Your task to perform on an android device: turn smart compose on in the gmail app Image 0: 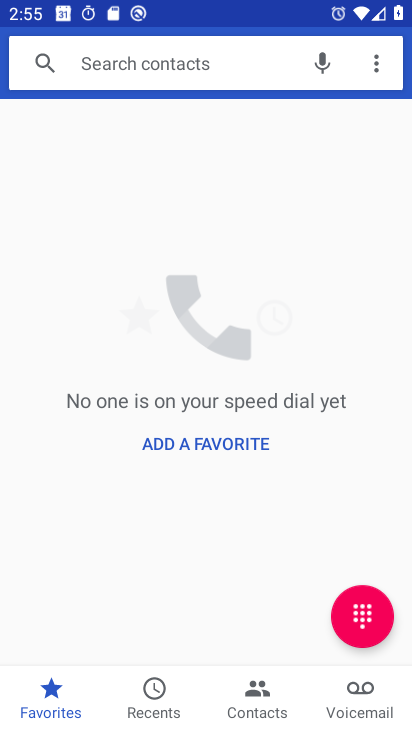
Step 0: press home button
Your task to perform on an android device: turn smart compose on in the gmail app Image 1: 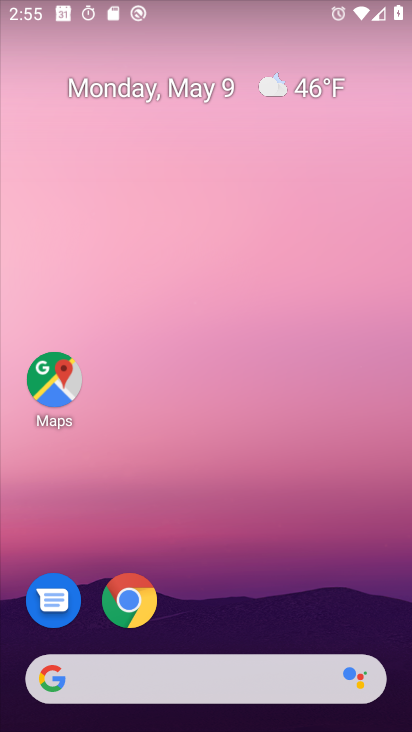
Step 1: drag from (146, 671) to (99, 185)
Your task to perform on an android device: turn smart compose on in the gmail app Image 2: 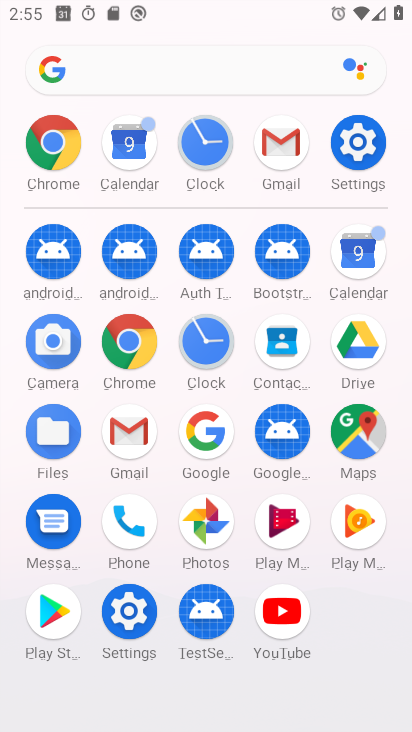
Step 2: click (274, 132)
Your task to perform on an android device: turn smart compose on in the gmail app Image 3: 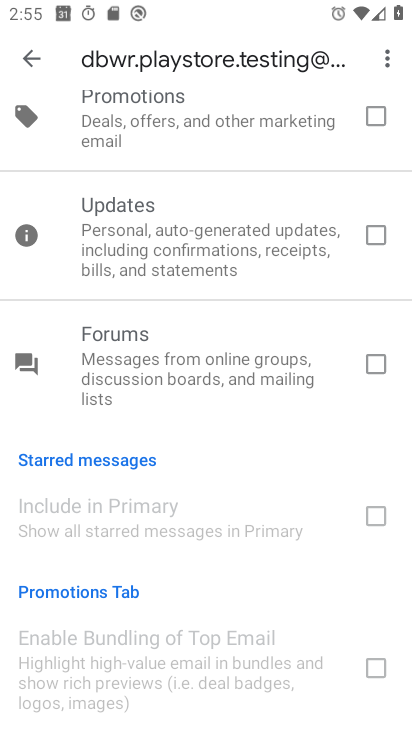
Step 3: click (43, 49)
Your task to perform on an android device: turn smart compose on in the gmail app Image 4: 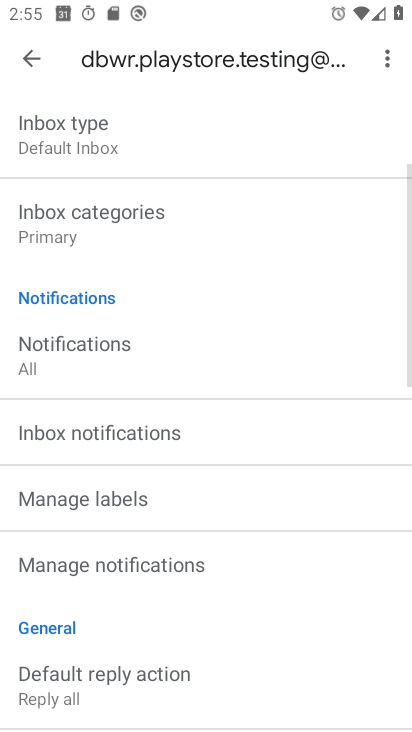
Step 4: task complete